Your task to perform on an android device: change alarm snooze length Image 0: 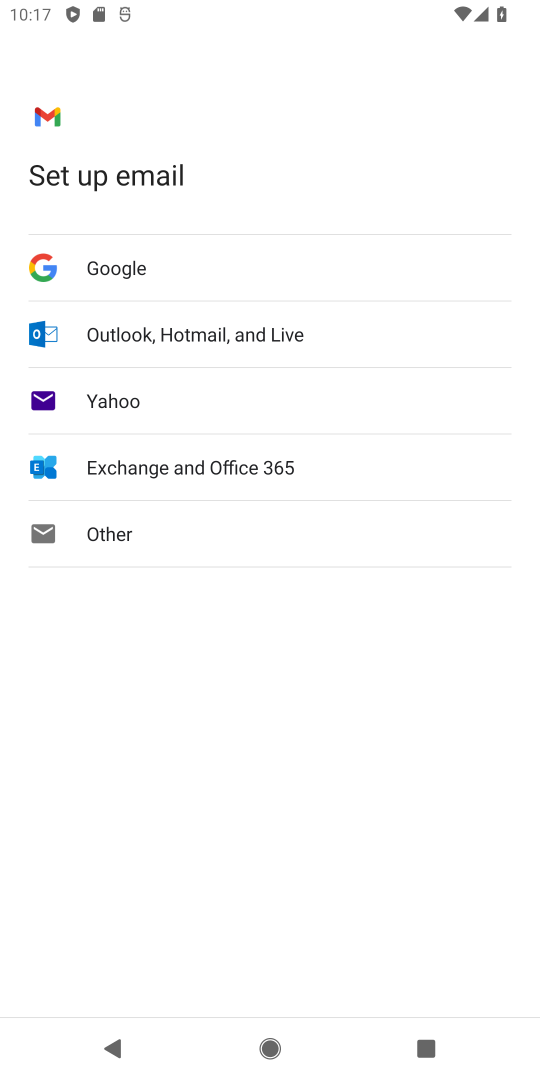
Step 0: press home button
Your task to perform on an android device: change alarm snooze length Image 1: 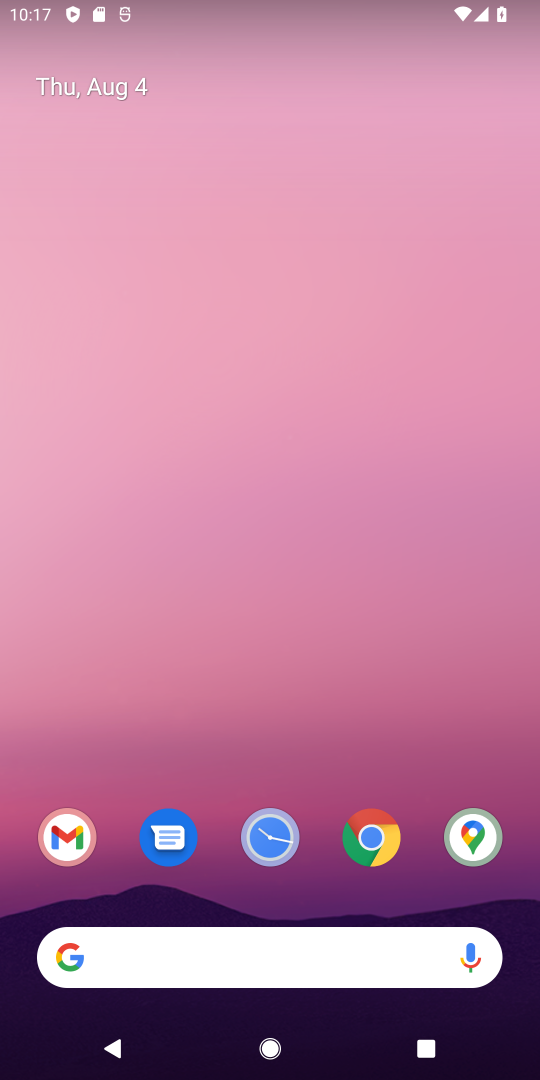
Step 1: drag from (315, 740) to (185, 40)
Your task to perform on an android device: change alarm snooze length Image 2: 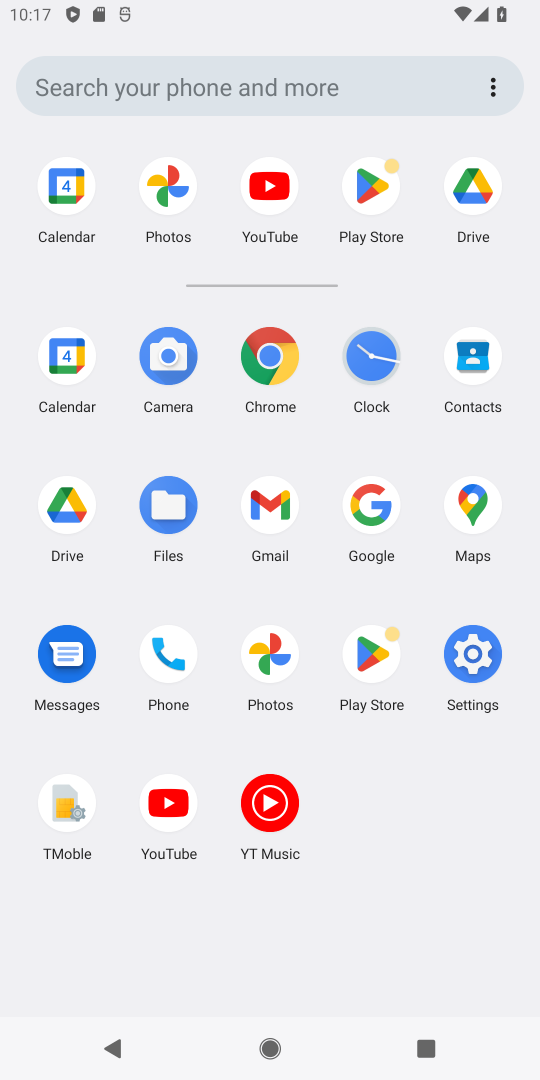
Step 2: click (372, 364)
Your task to perform on an android device: change alarm snooze length Image 3: 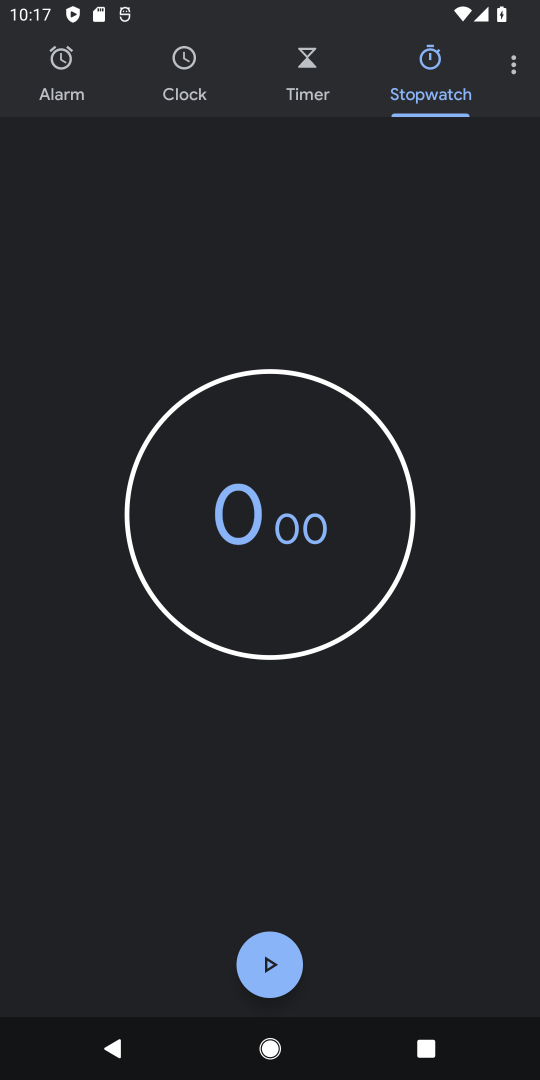
Step 3: click (57, 60)
Your task to perform on an android device: change alarm snooze length Image 4: 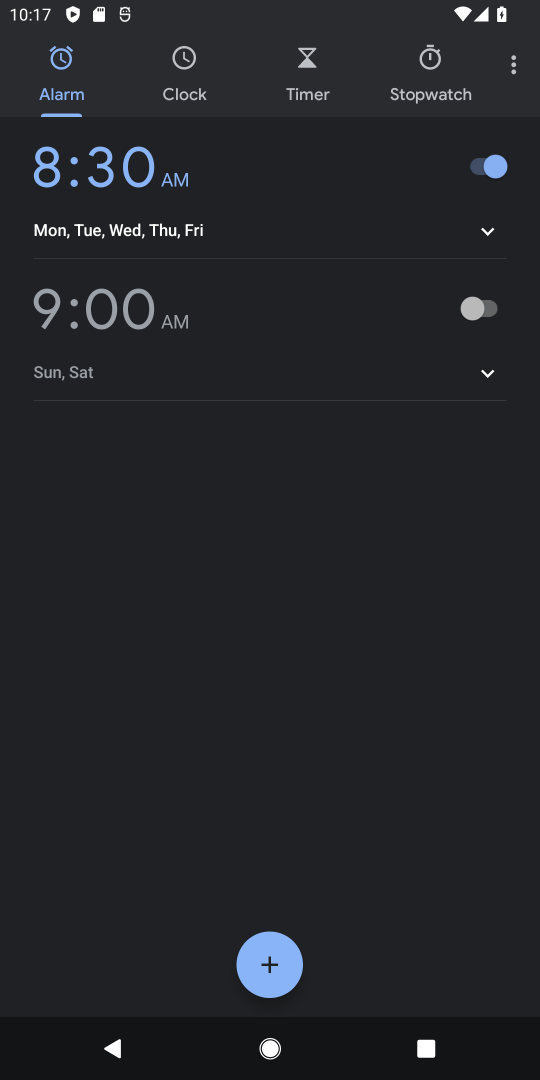
Step 4: click (519, 53)
Your task to perform on an android device: change alarm snooze length Image 5: 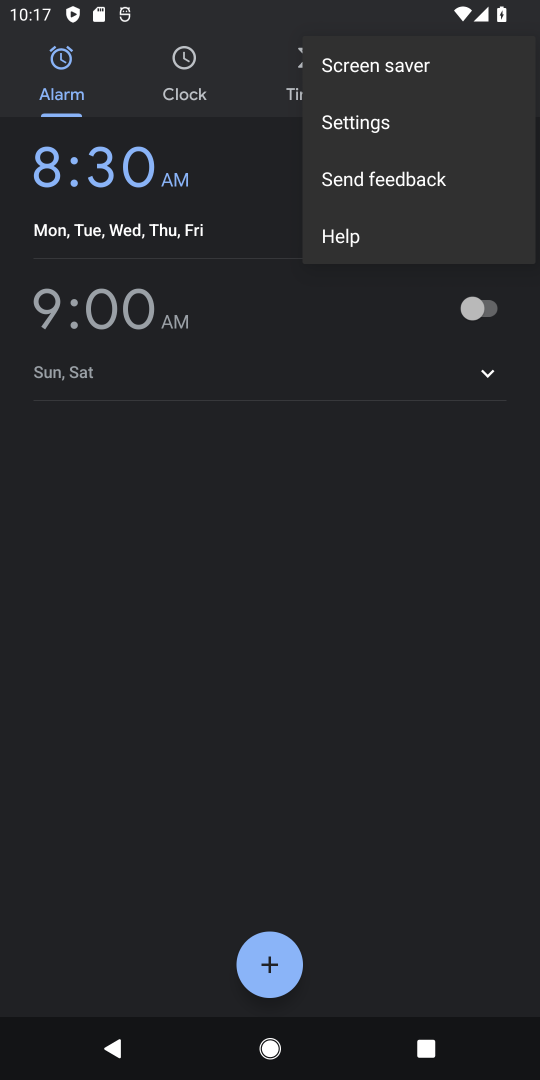
Step 5: click (395, 124)
Your task to perform on an android device: change alarm snooze length Image 6: 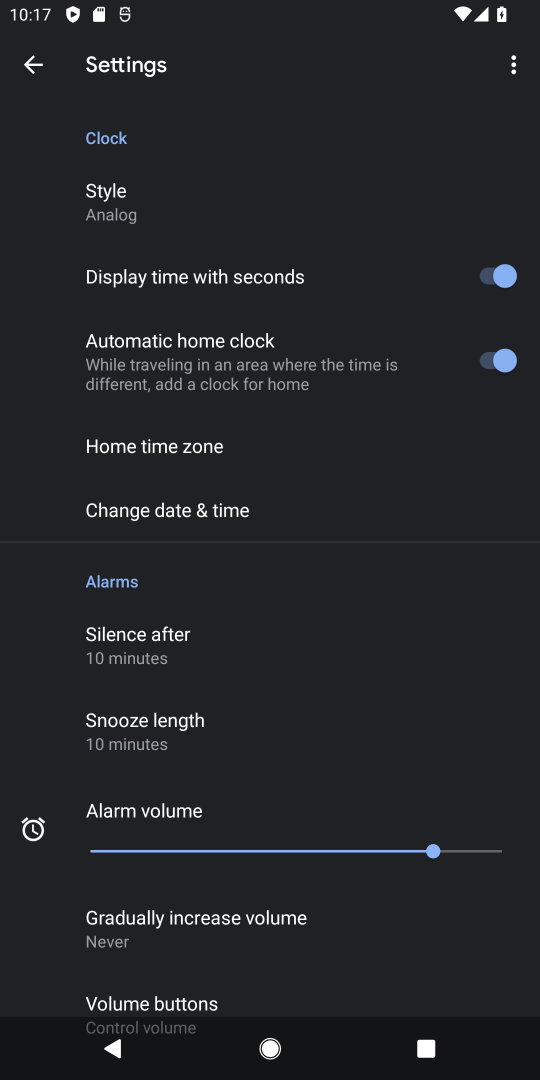
Step 6: click (220, 732)
Your task to perform on an android device: change alarm snooze length Image 7: 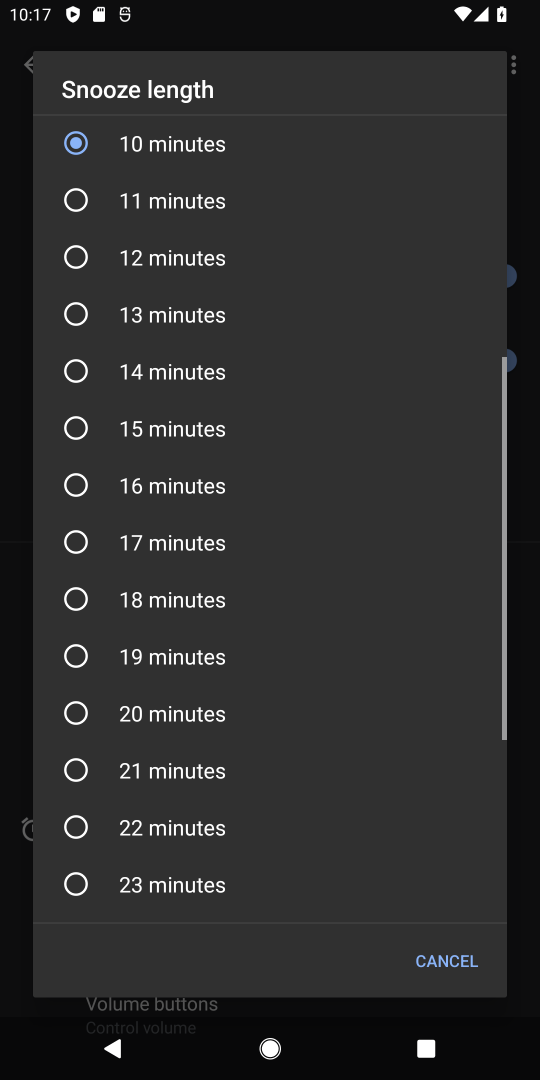
Step 7: click (174, 718)
Your task to perform on an android device: change alarm snooze length Image 8: 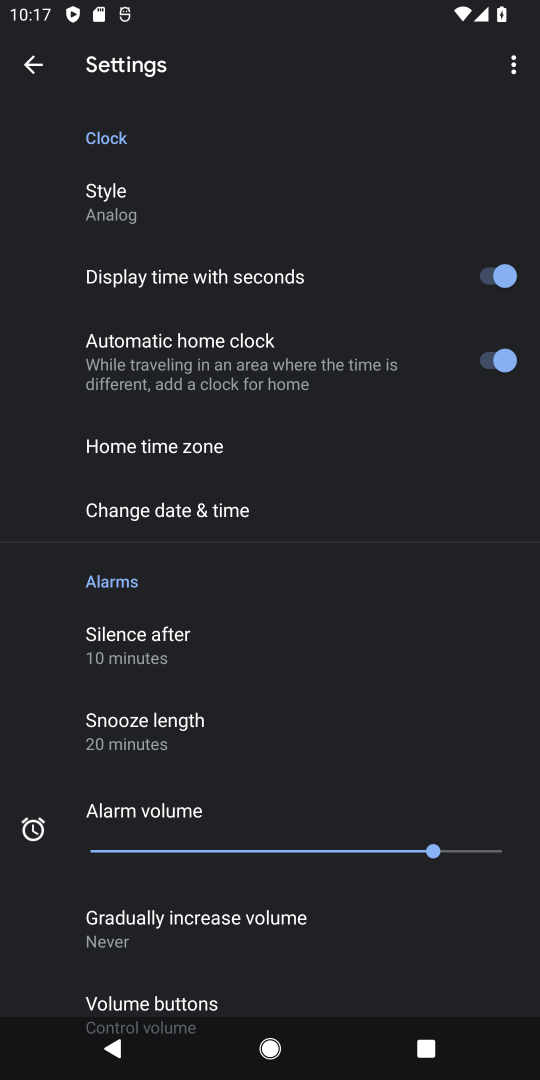
Step 8: task complete